Your task to perform on an android device: Go to calendar. Show me events next week Image 0: 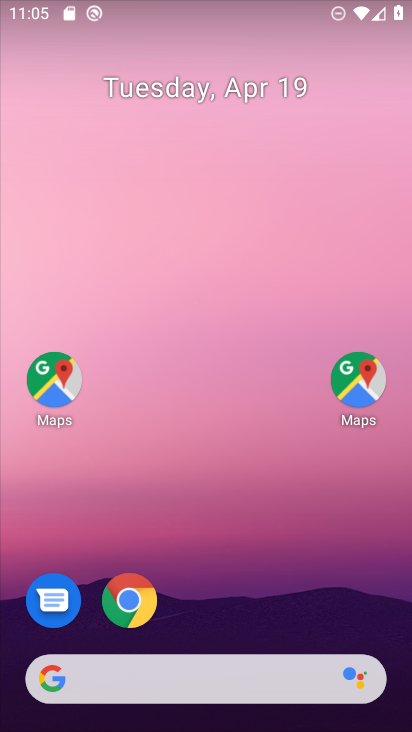
Step 0: drag from (261, 656) to (324, 4)
Your task to perform on an android device: Go to calendar. Show me events next week Image 1: 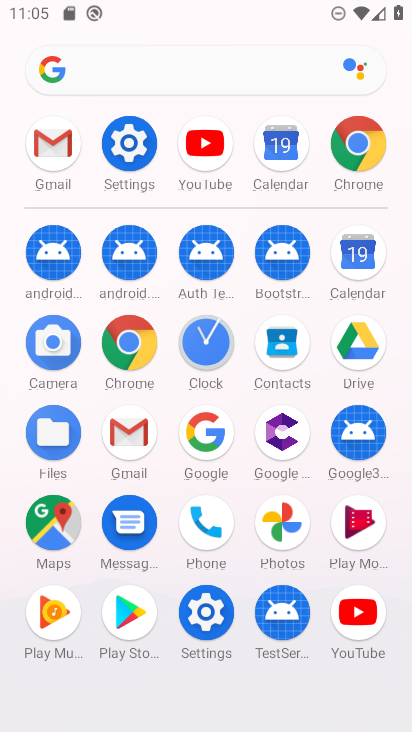
Step 1: click (364, 268)
Your task to perform on an android device: Go to calendar. Show me events next week Image 2: 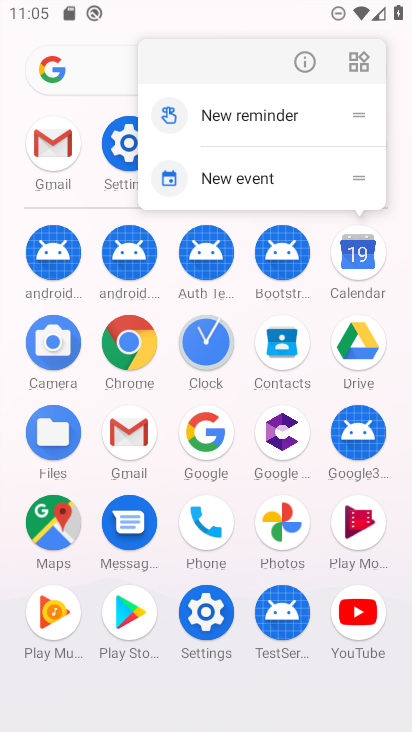
Step 2: click (364, 268)
Your task to perform on an android device: Go to calendar. Show me events next week Image 3: 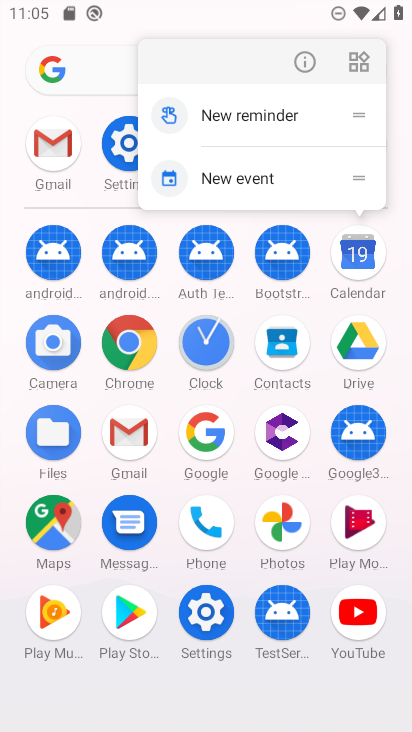
Step 3: click (364, 268)
Your task to perform on an android device: Go to calendar. Show me events next week Image 4: 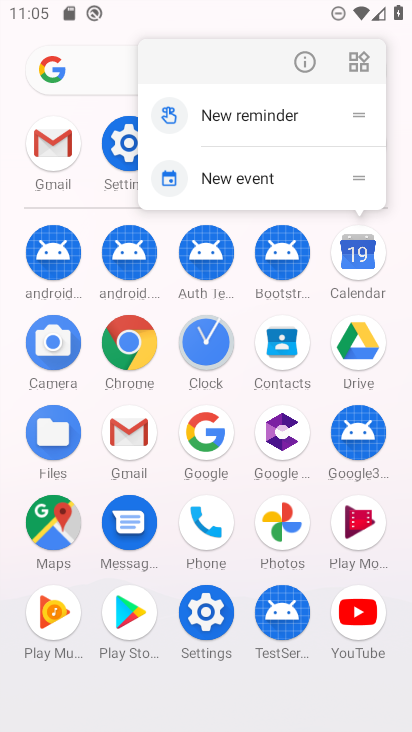
Step 4: click (364, 268)
Your task to perform on an android device: Go to calendar. Show me events next week Image 5: 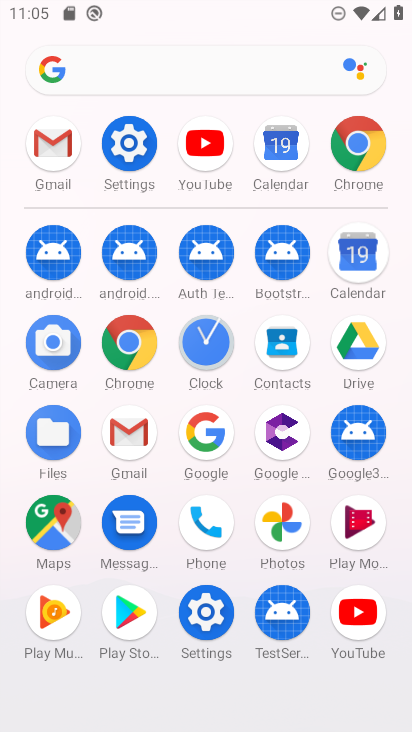
Step 5: click (364, 268)
Your task to perform on an android device: Go to calendar. Show me events next week Image 6: 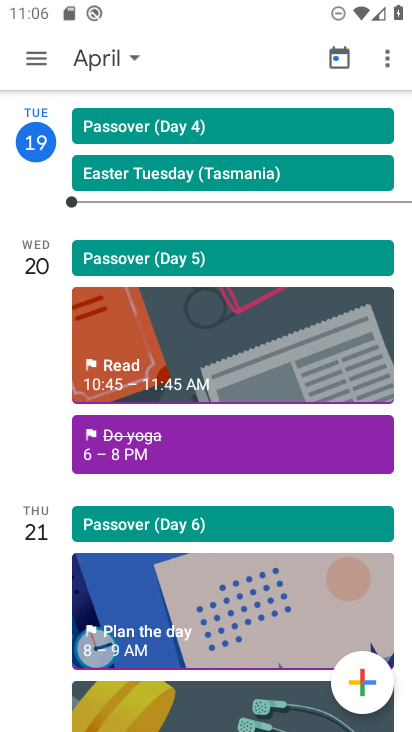
Step 6: click (135, 51)
Your task to perform on an android device: Go to calendar. Show me events next week Image 7: 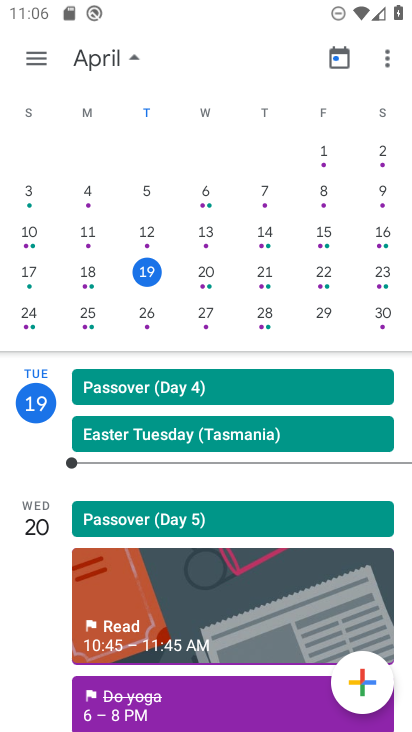
Step 7: click (204, 310)
Your task to perform on an android device: Go to calendar. Show me events next week Image 8: 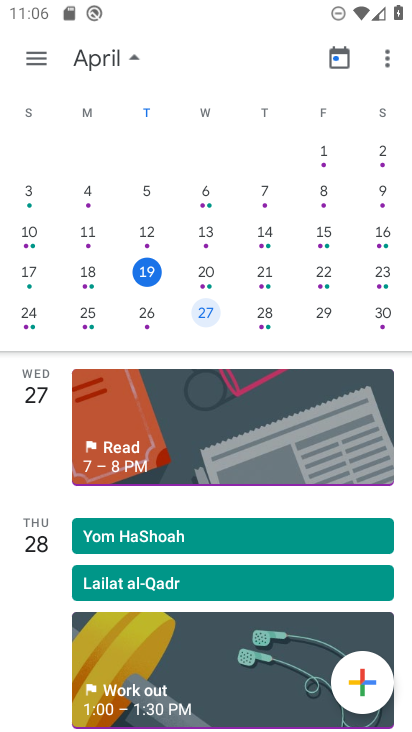
Step 8: task complete